Your task to perform on an android device: When is my next appointment? Image 0: 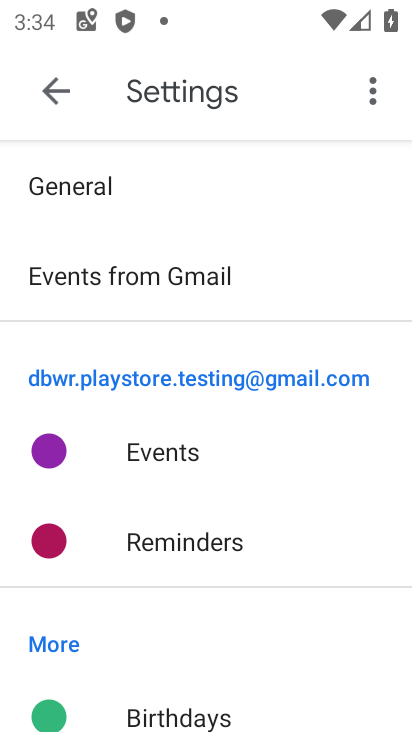
Step 0: press home button
Your task to perform on an android device: When is my next appointment? Image 1: 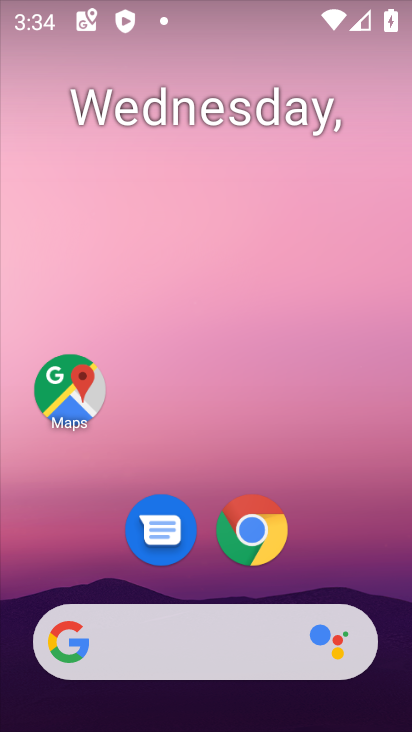
Step 1: drag from (368, 570) to (372, 80)
Your task to perform on an android device: When is my next appointment? Image 2: 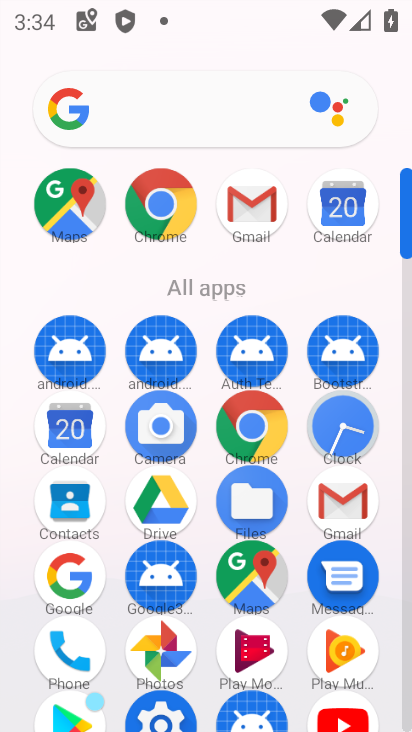
Step 2: click (62, 426)
Your task to perform on an android device: When is my next appointment? Image 3: 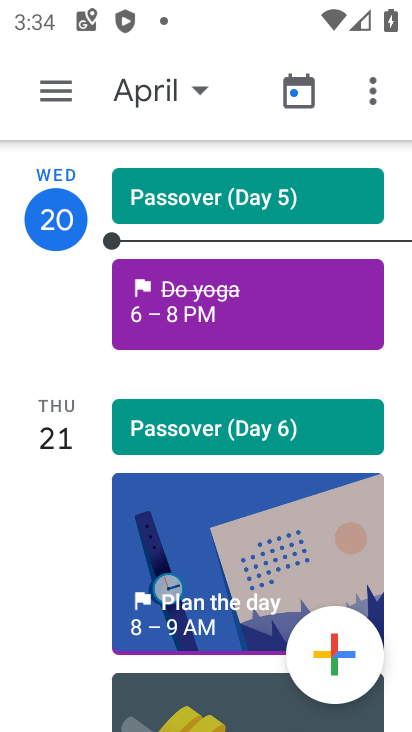
Step 3: click (64, 93)
Your task to perform on an android device: When is my next appointment? Image 4: 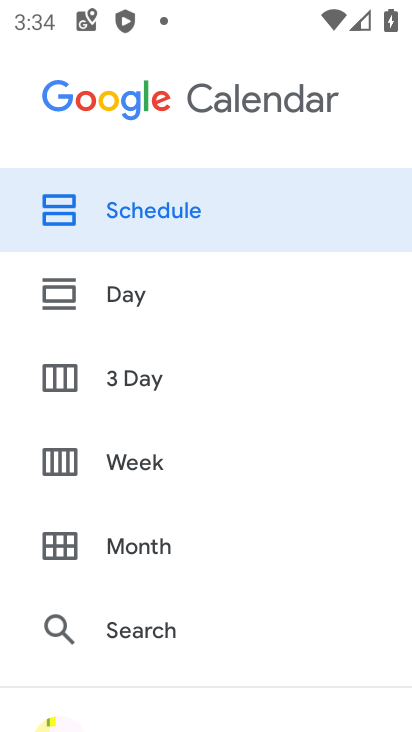
Step 4: drag from (235, 492) to (241, 299)
Your task to perform on an android device: When is my next appointment? Image 5: 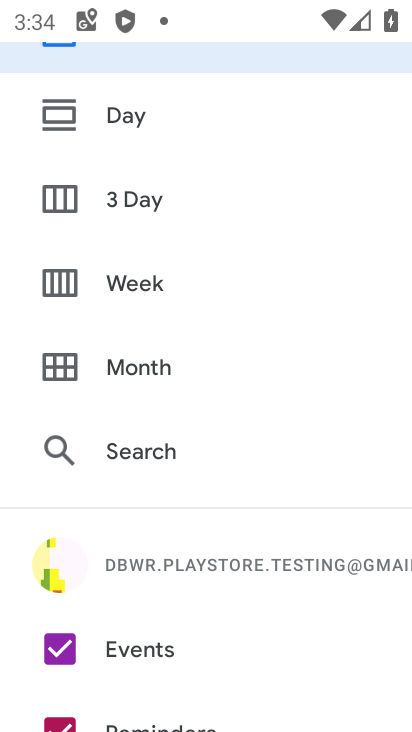
Step 5: drag from (233, 274) to (246, 166)
Your task to perform on an android device: When is my next appointment? Image 6: 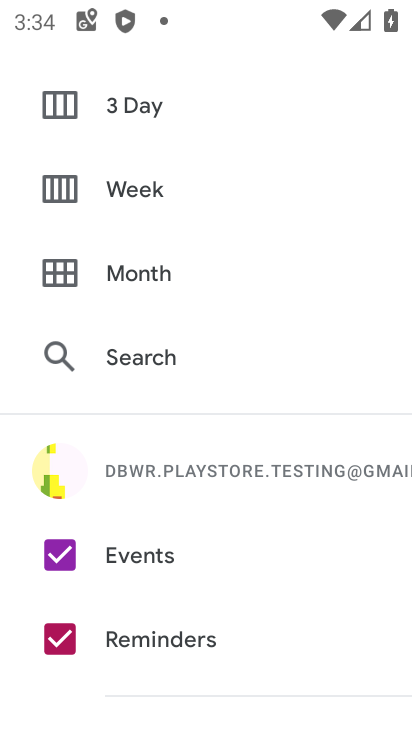
Step 6: drag from (292, 280) to (291, 505)
Your task to perform on an android device: When is my next appointment? Image 7: 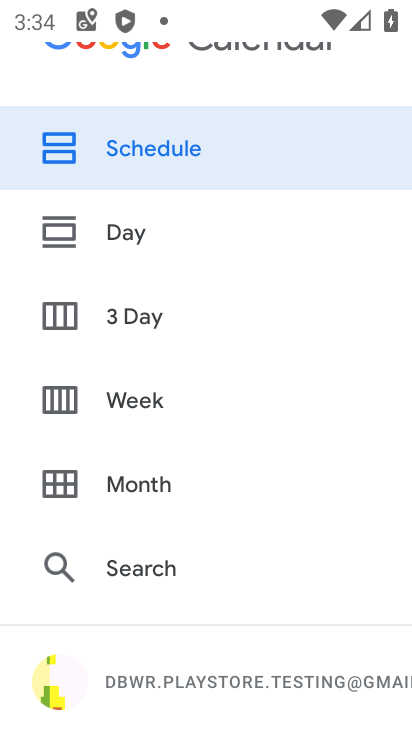
Step 7: click (128, 142)
Your task to perform on an android device: When is my next appointment? Image 8: 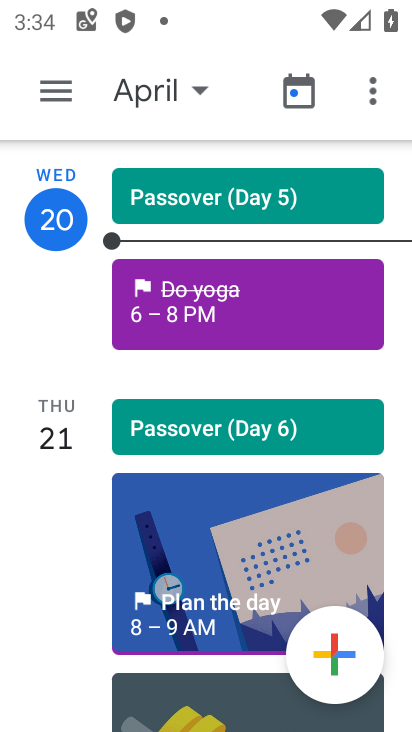
Step 8: click (43, 87)
Your task to perform on an android device: When is my next appointment? Image 9: 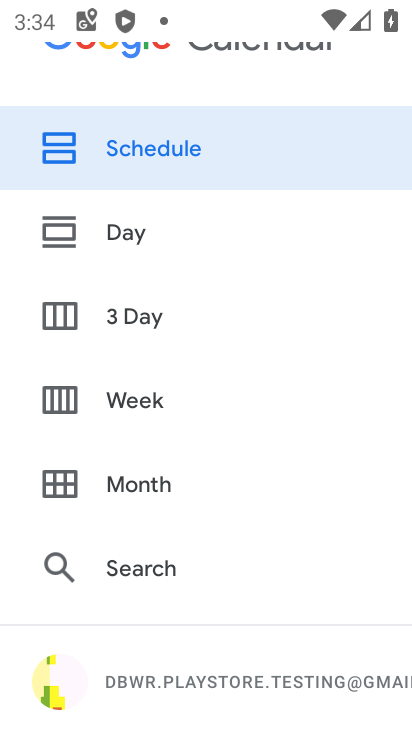
Step 9: click (123, 233)
Your task to perform on an android device: When is my next appointment? Image 10: 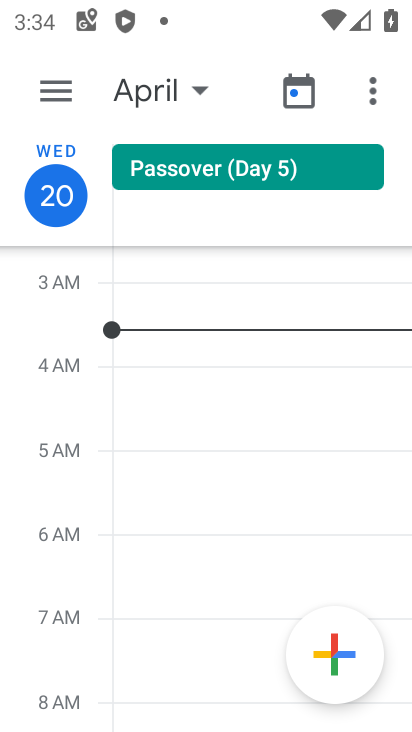
Step 10: click (64, 95)
Your task to perform on an android device: When is my next appointment? Image 11: 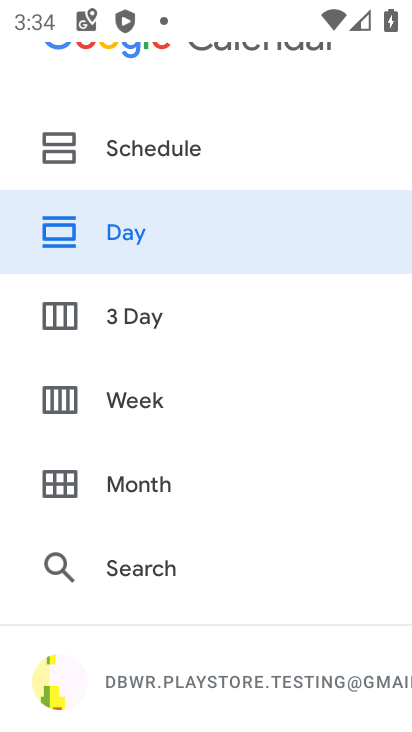
Step 11: click (159, 321)
Your task to perform on an android device: When is my next appointment? Image 12: 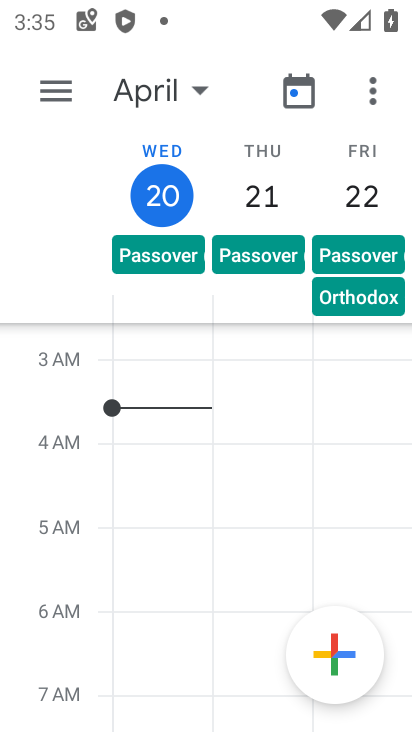
Step 12: click (115, 94)
Your task to perform on an android device: When is my next appointment? Image 13: 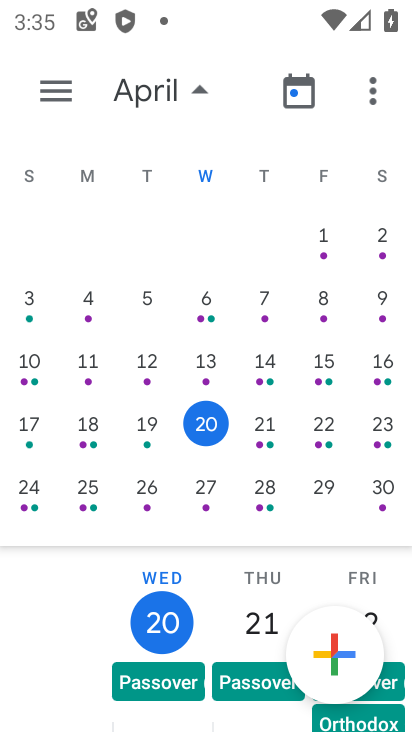
Step 13: click (256, 437)
Your task to perform on an android device: When is my next appointment? Image 14: 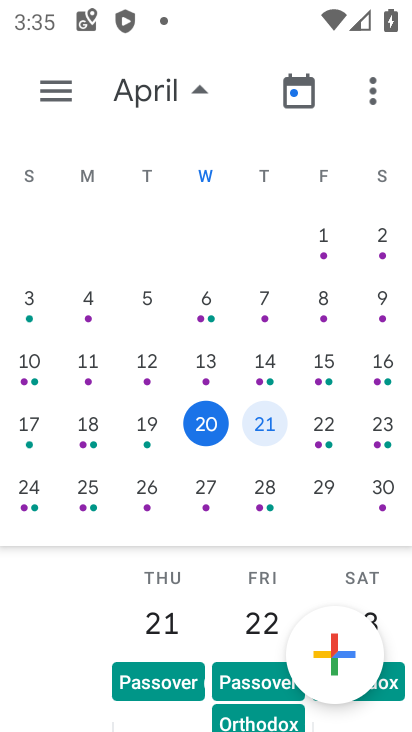
Step 14: task complete